Your task to perform on an android device: Open Chrome and go to settings Image 0: 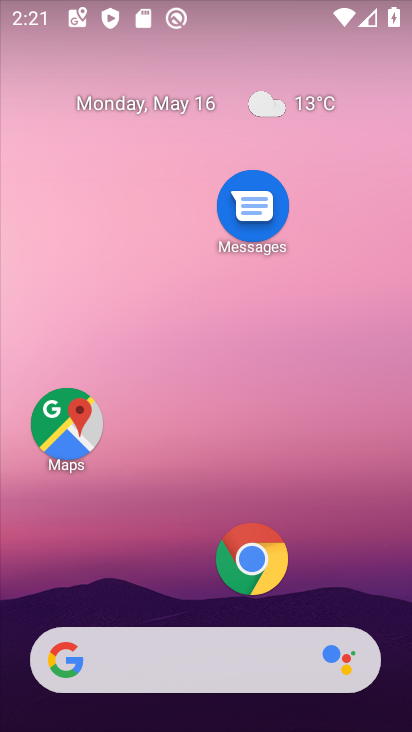
Step 0: click (251, 561)
Your task to perform on an android device: Open Chrome and go to settings Image 1: 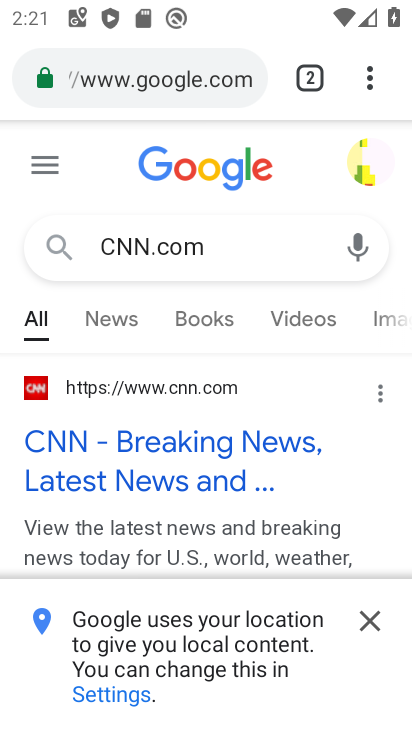
Step 1: click (368, 75)
Your task to perform on an android device: Open Chrome and go to settings Image 2: 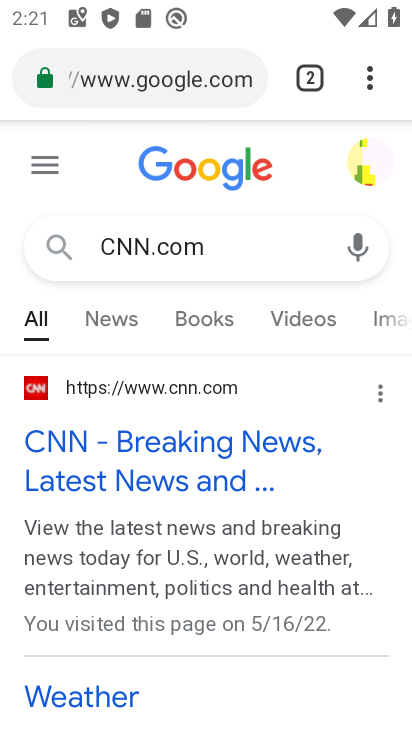
Step 2: click (367, 72)
Your task to perform on an android device: Open Chrome and go to settings Image 3: 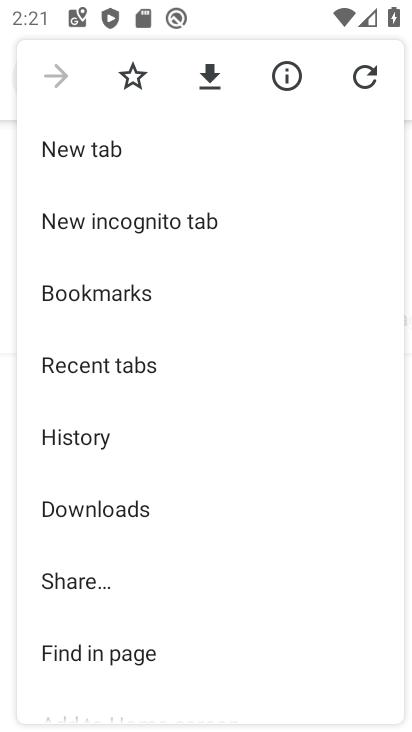
Step 3: drag from (127, 588) to (183, 191)
Your task to perform on an android device: Open Chrome and go to settings Image 4: 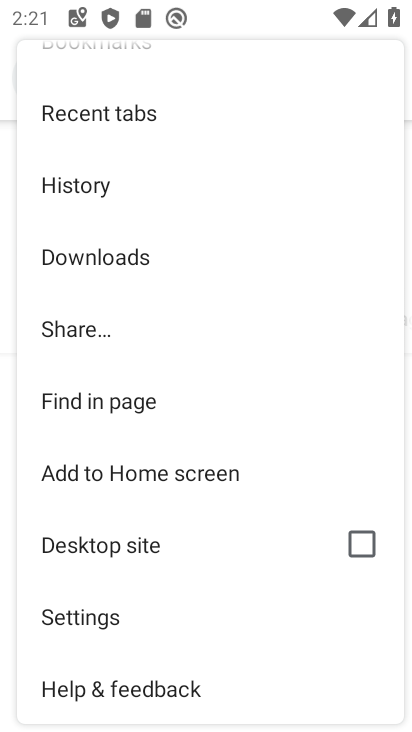
Step 4: click (108, 614)
Your task to perform on an android device: Open Chrome and go to settings Image 5: 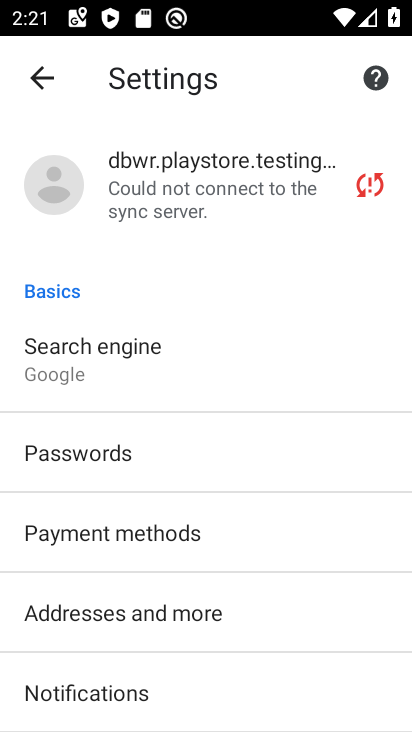
Step 5: task complete